Your task to perform on an android device: change the clock display to digital Image 0: 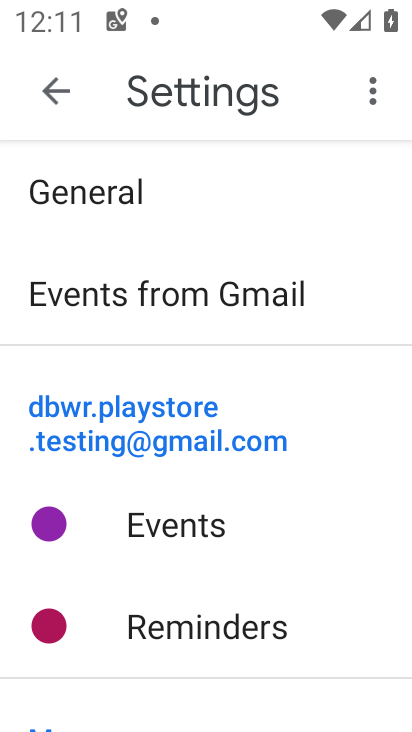
Step 0: press home button
Your task to perform on an android device: change the clock display to digital Image 1: 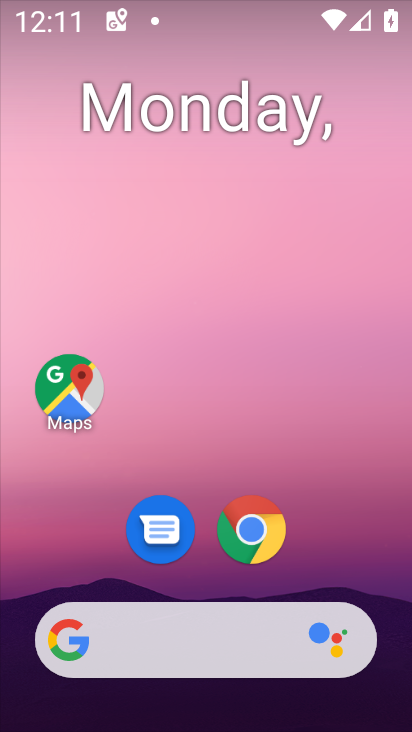
Step 1: drag from (164, 620) to (164, 135)
Your task to perform on an android device: change the clock display to digital Image 2: 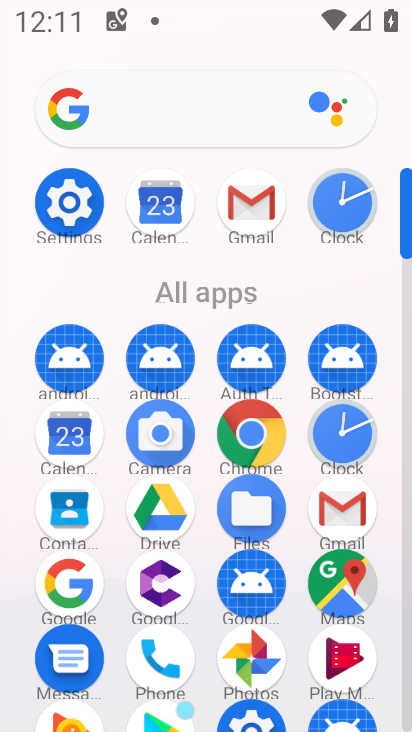
Step 2: click (351, 437)
Your task to perform on an android device: change the clock display to digital Image 3: 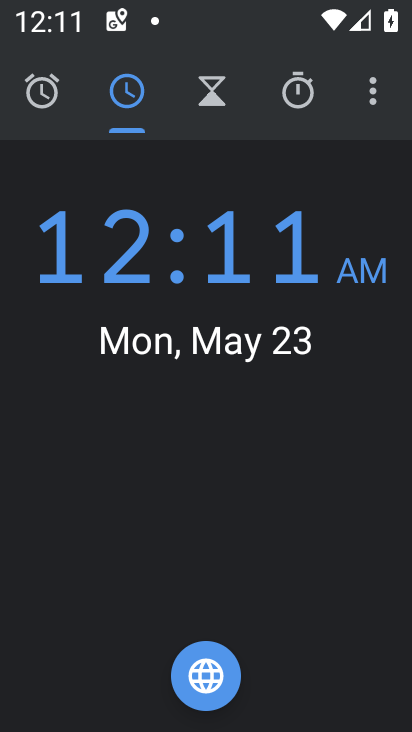
Step 3: click (370, 92)
Your task to perform on an android device: change the clock display to digital Image 4: 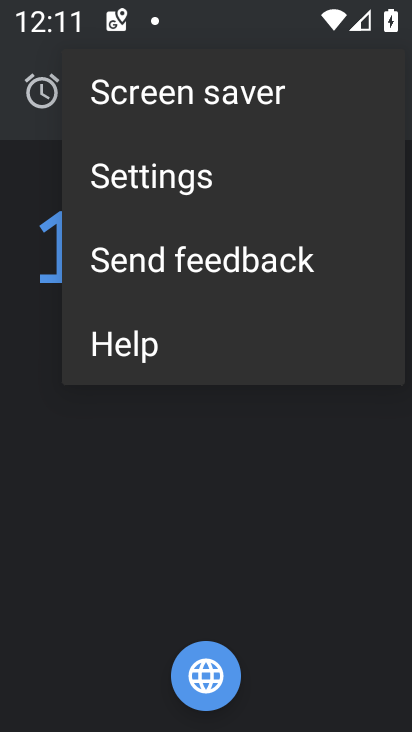
Step 4: click (180, 199)
Your task to perform on an android device: change the clock display to digital Image 5: 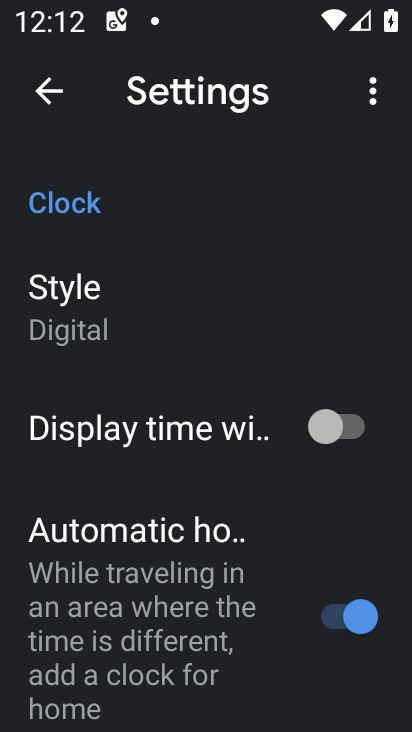
Step 5: click (84, 296)
Your task to perform on an android device: change the clock display to digital Image 6: 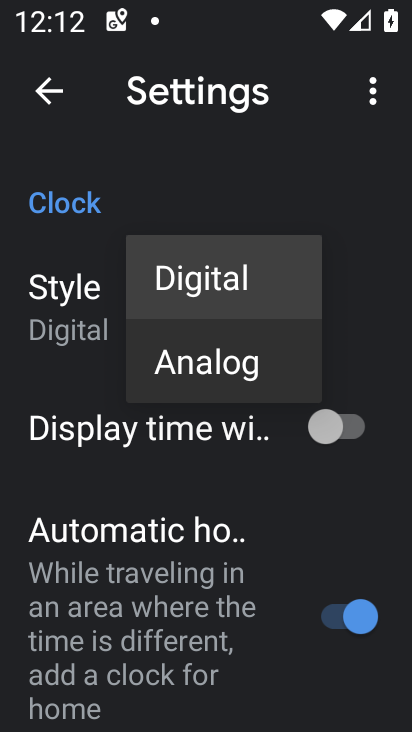
Step 6: click (206, 281)
Your task to perform on an android device: change the clock display to digital Image 7: 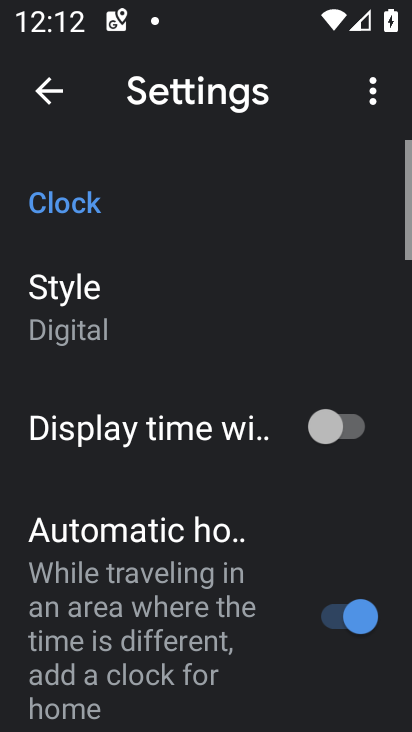
Step 7: task complete